Your task to perform on an android device: toggle airplane mode Image 0: 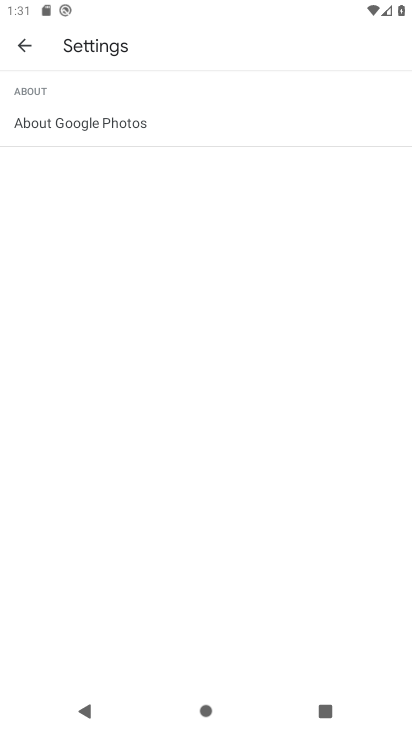
Step 0: press home button
Your task to perform on an android device: toggle airplane mode Image 1: 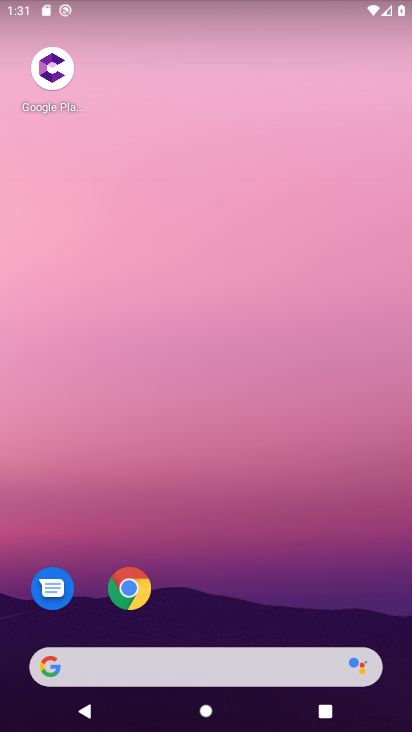
Step 1: drag from (270, 485) to (288, 49)
Your task to perform on an android device: toggle airplane mode Image 2: 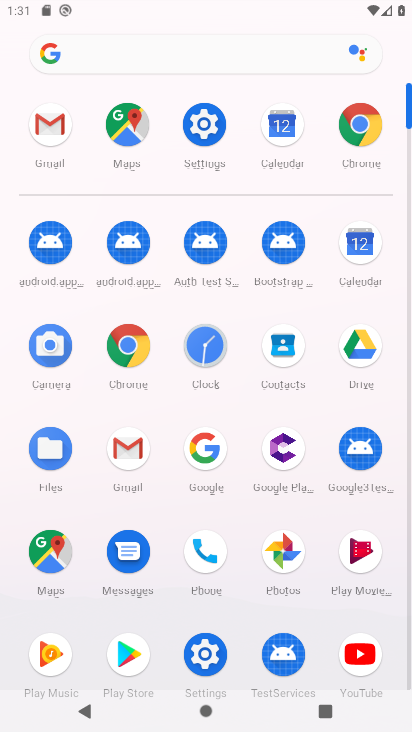
Step 2: click (209, 116)
Your task to perform on an android device: toggle airplane mode Image 3: 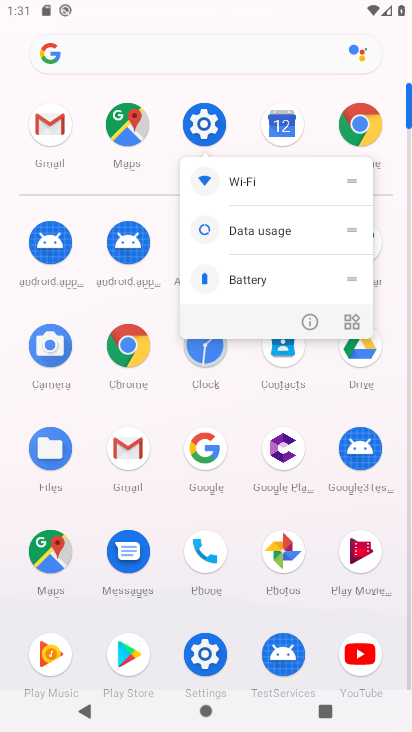
Step 3: click (197, 130)
Your task to perform on an android device: toggle airplane mode Image 4: 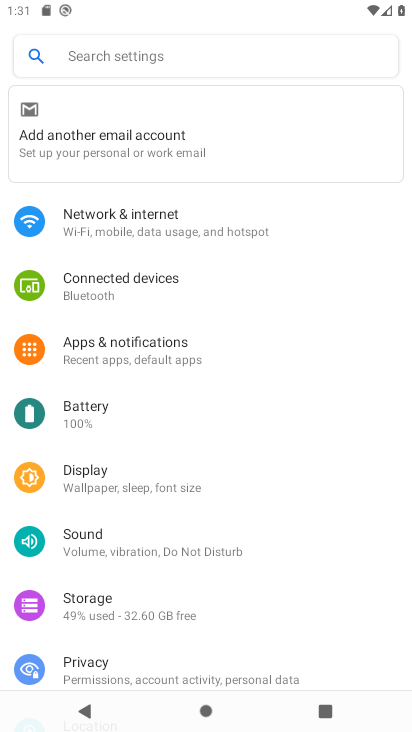
Step 4: click (128, 213)
Your task to perform on an android device: toggle airplane mode Image 5: 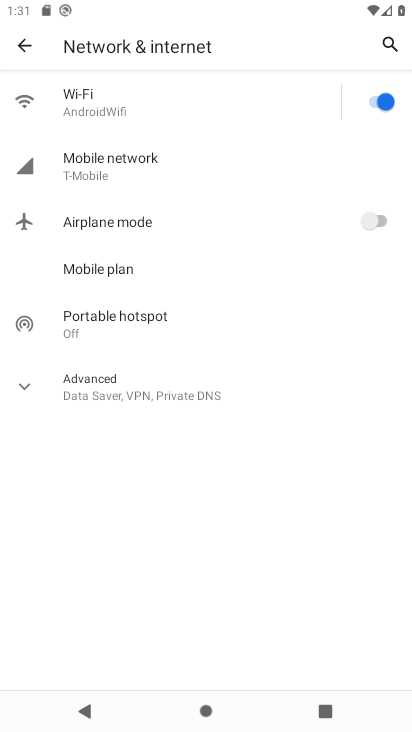
Step 5: click (374, 231)
Your task to perform on an android device: toggle airplane mode Image 6: 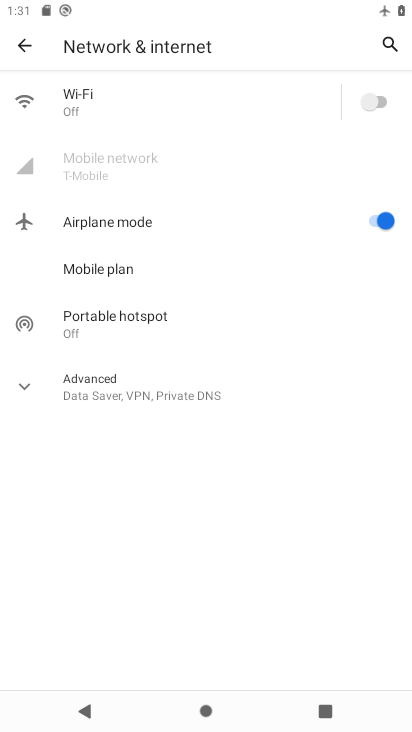
Step 6: task complete